Your task to perform on an android device: Add usb-a to usb-b to the cart on target.com, then select checkout. Image 0: 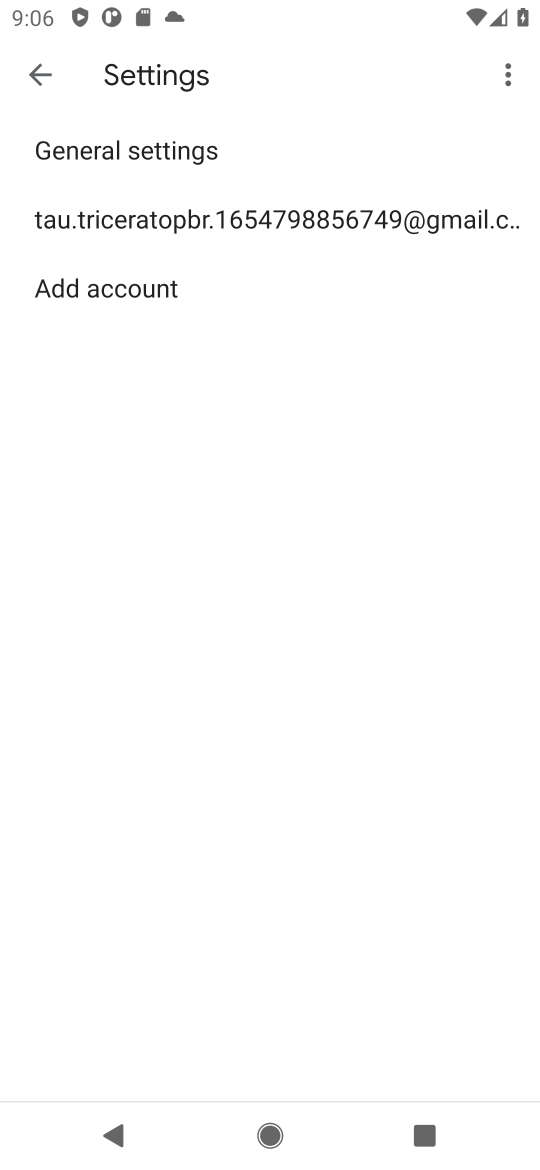
Step 0: click (385, 911)
Your task to perform on an android device: Add usb-a to usb-b to the cart on target.com, then select checkout. Image 1: 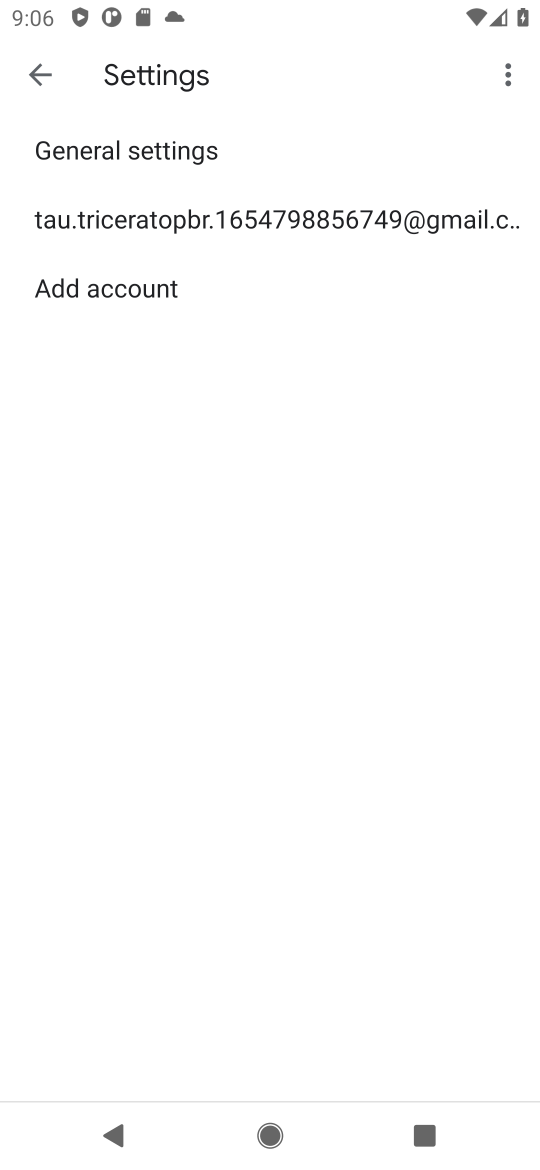
Step 1: press home button
Your task to perform on an android device: Add usb-a to usb-b to the cart on target.com, then select checkout. Image 2: 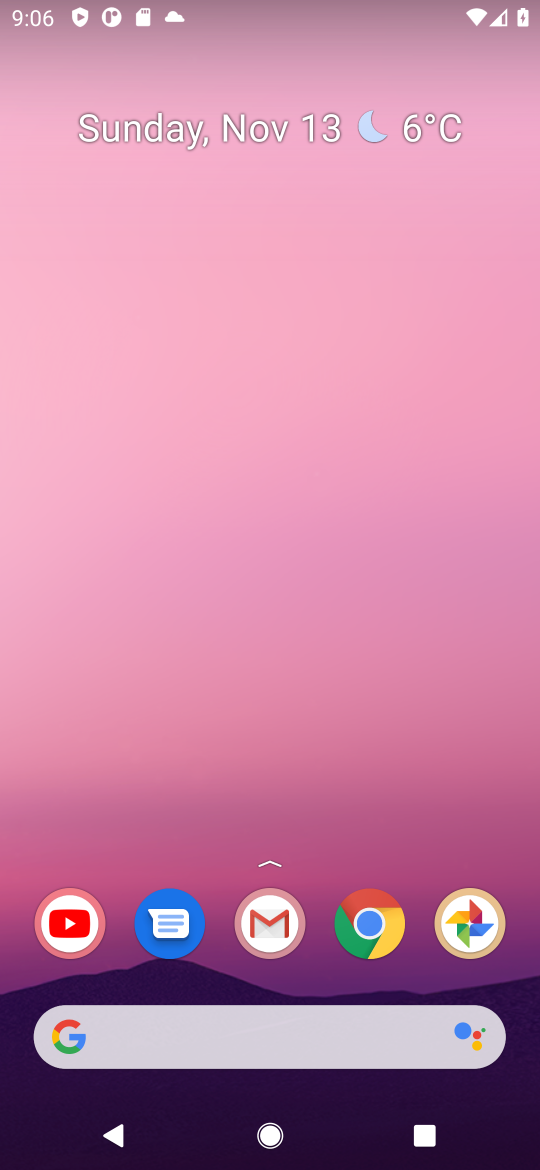
Step 2: click (394, 906)
Your task to perform on an android device: Add usb-a to usb-b to the cart on target.com, then select checkout. Image 3: 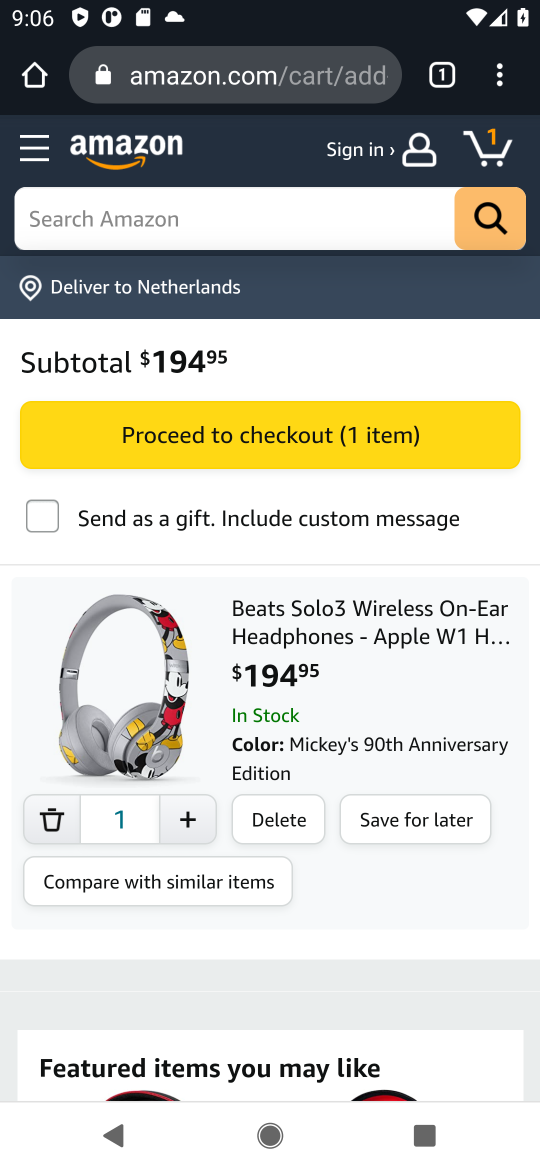
Step 3: click (329, 69)
Your task to perform on an android device: Add usb-a to usb-b to the cart on target.com, then select checkout. Image 4: 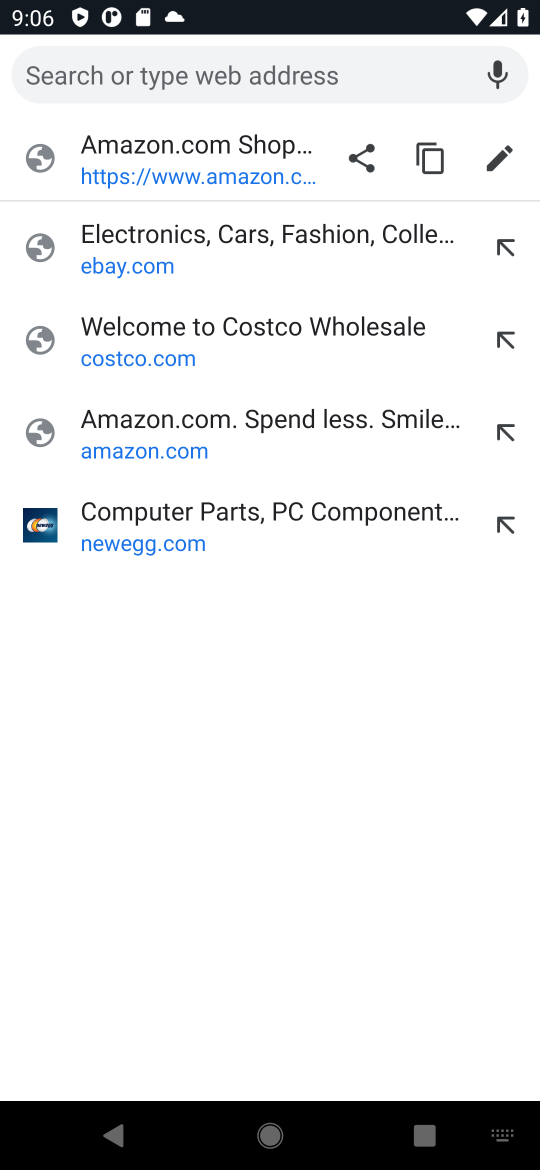
Step 4: type " target.com"
Your task to perform on an android device: Add usb-a to usb-b to the cart on target.com, then select checkout. Image 5: 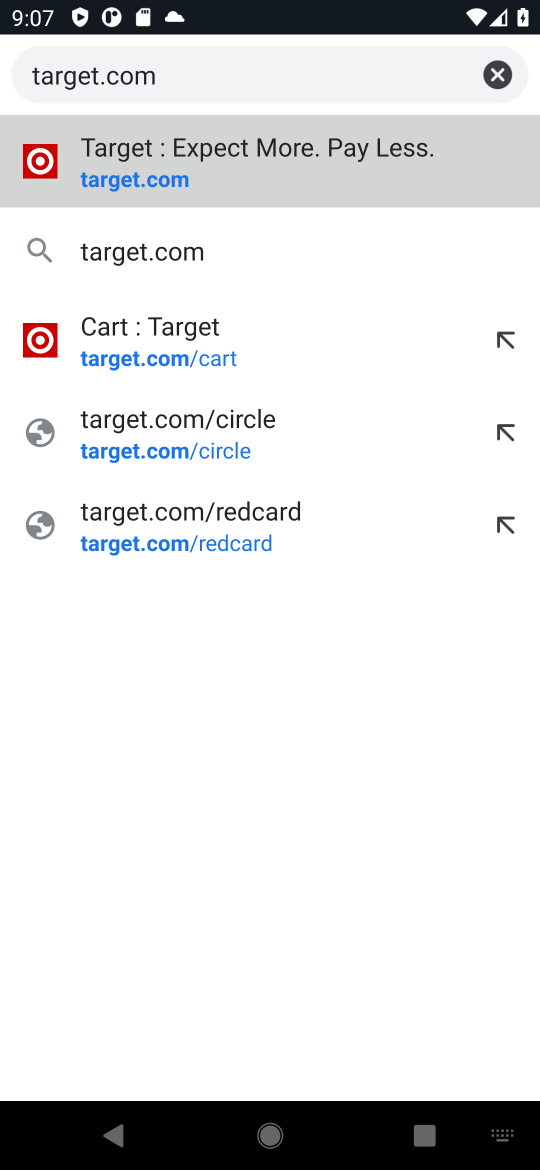
Step 5: click (186, 245)
Your task to perform on an android device: Add usb-a to usb-b to the cart on target.com, then select checkout. Image 6: 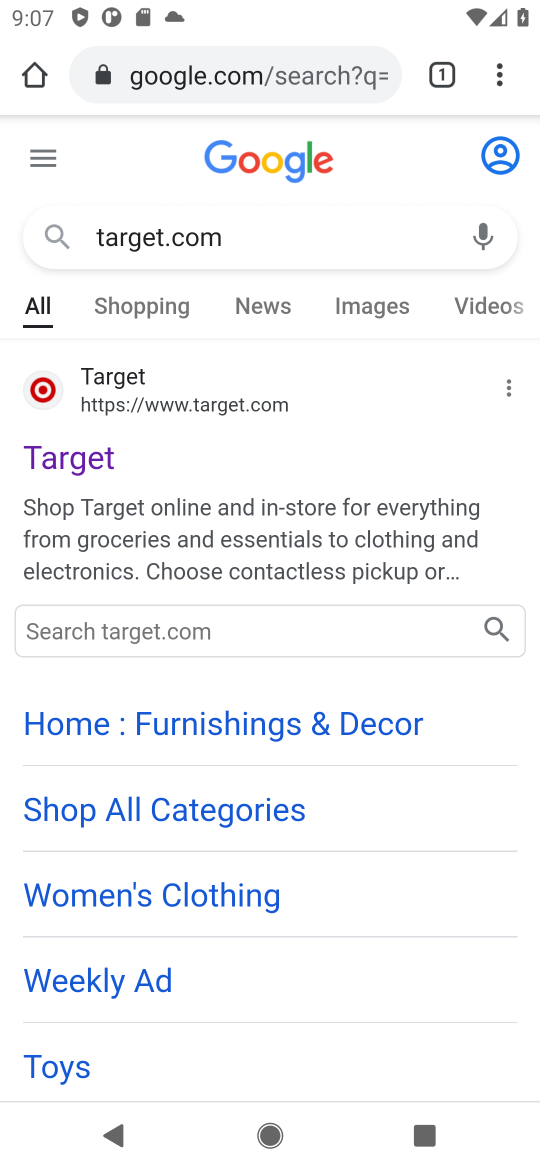
Step 6: click (211, 403)
Your task to perform on an android device: Add usb-a to usb-b to the cart on target.com, then select checkout. Image 7: 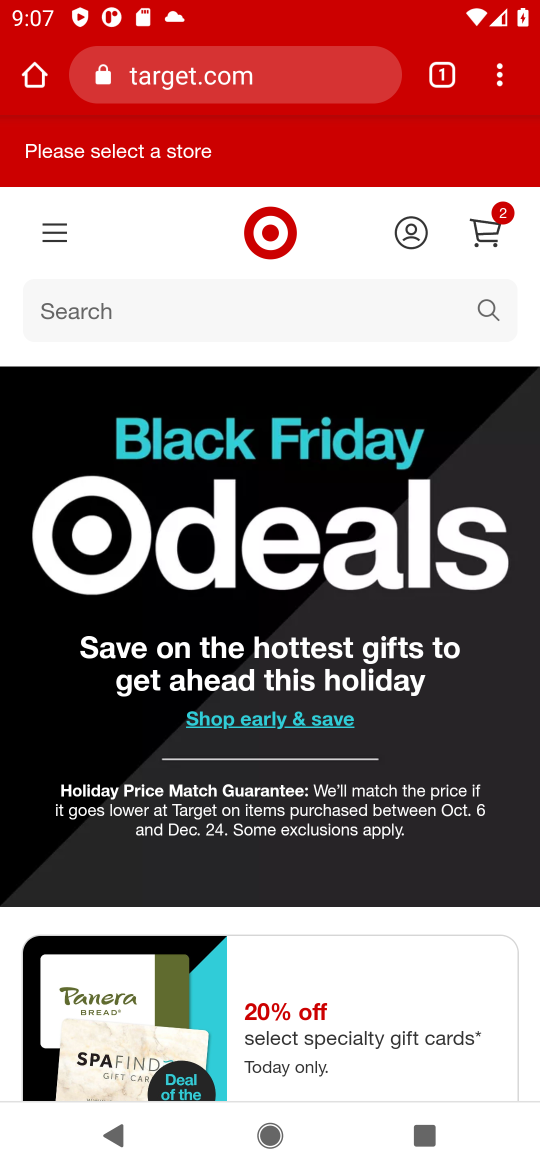
Step 7: click (491, 313)
Your task to perform on an android device: Add usb-a to usb-b to the cart on target.com, then select checkout. Image 8: 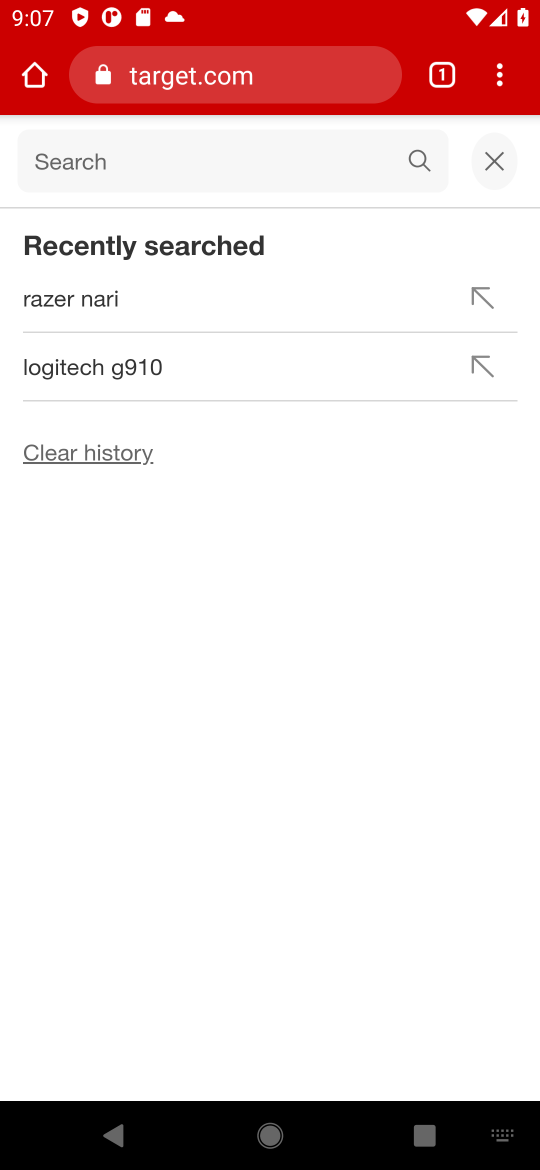
Step 8: type "usb-a to usb-b"
Your task to perform on an android device: Add usb-a to usb-b to the cart on target.com, then select checkout. Image 9: 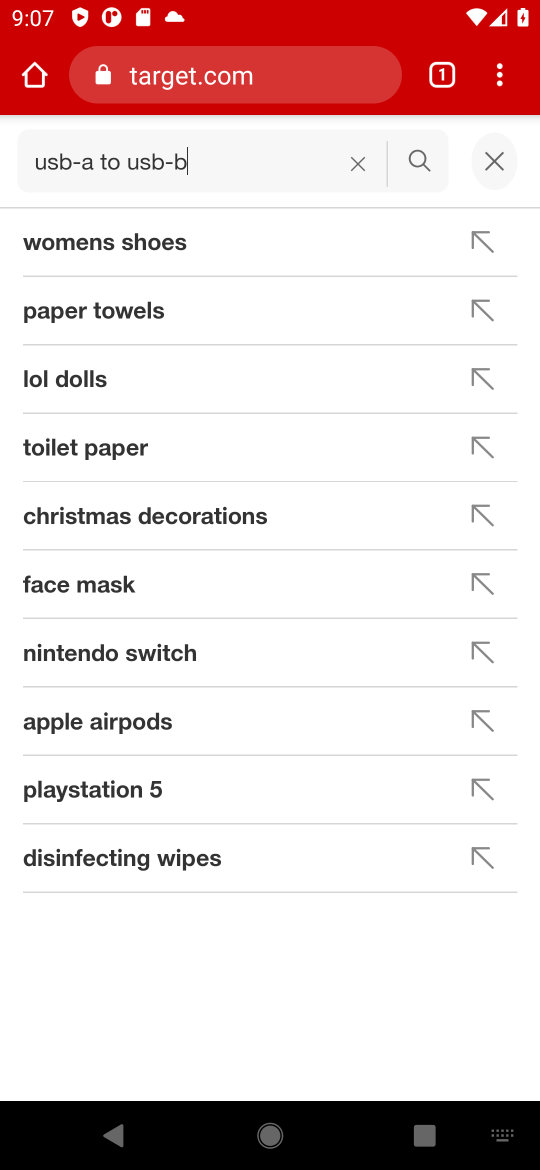
Step 9: press enter
Your task to perform on an android device: Add usb-a to usb-b to the cart on target.com, then select checkout. Image 10: 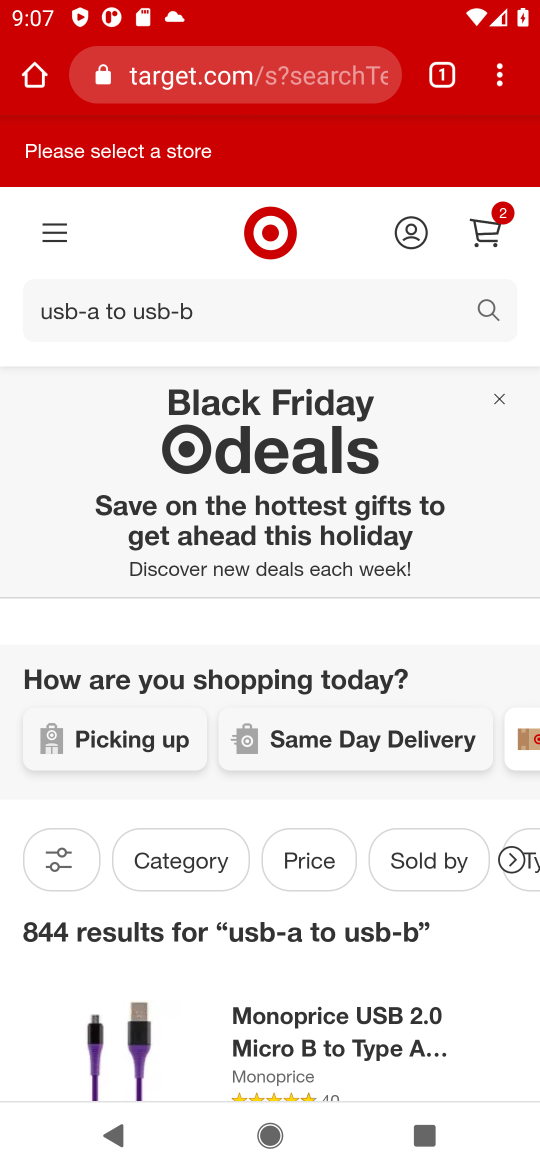
Step 10: drag from (440, 1010) to (450, 645)
Your task to perform on an android device: Add usb-a to usb-b to the cart on target.com, then select checkout. Image 11: 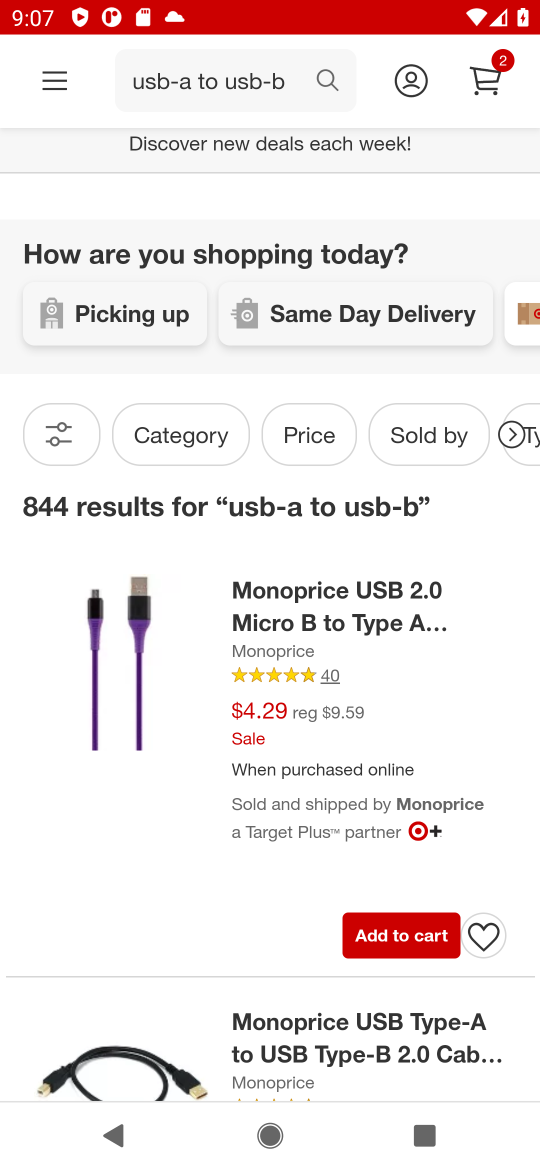
Step 11: click (122, 686)
Your task to perform on an android device: Add usb-a to usb-b to the cart on target.com, then select checkout. Image 12: 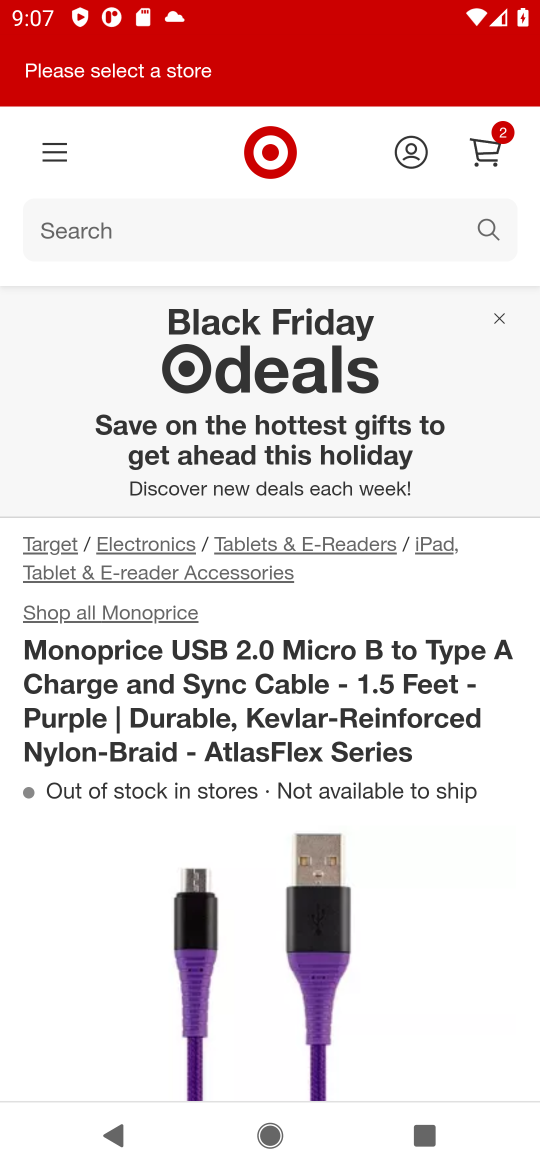
Step 12: drag from (422, 939) to (348, 339)
Your task to perform on an android device: Add usb-a to usb-b to the cart on target.com, then select checkout. Image 13: 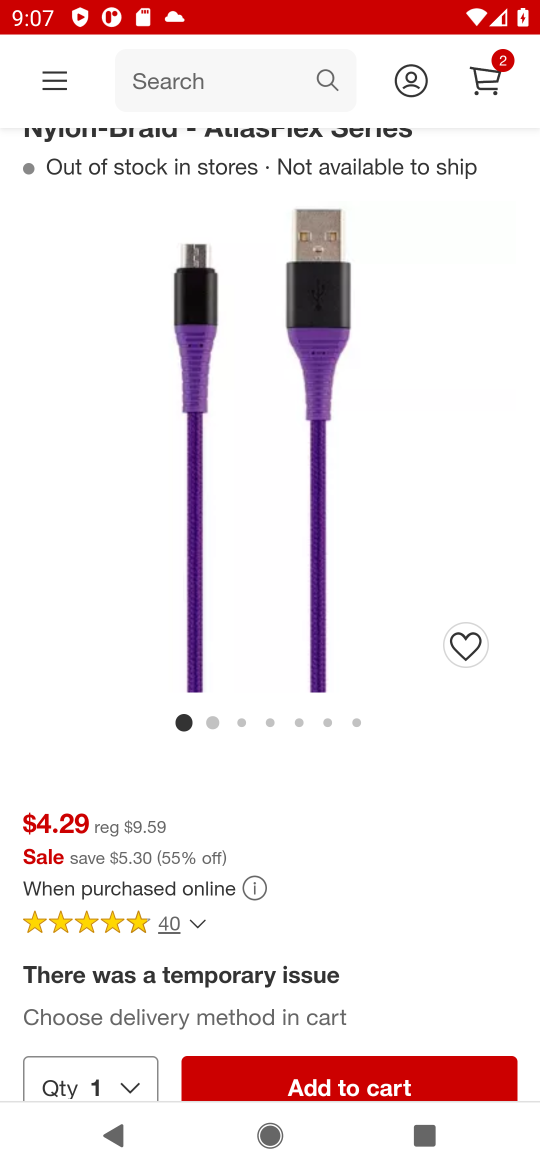
Step 13: drag from (401, 822) to (349, 443)
Your task to perform on an android device: Add usb-a to usb-b to the cart on target.com, then select checkout. Image 14: 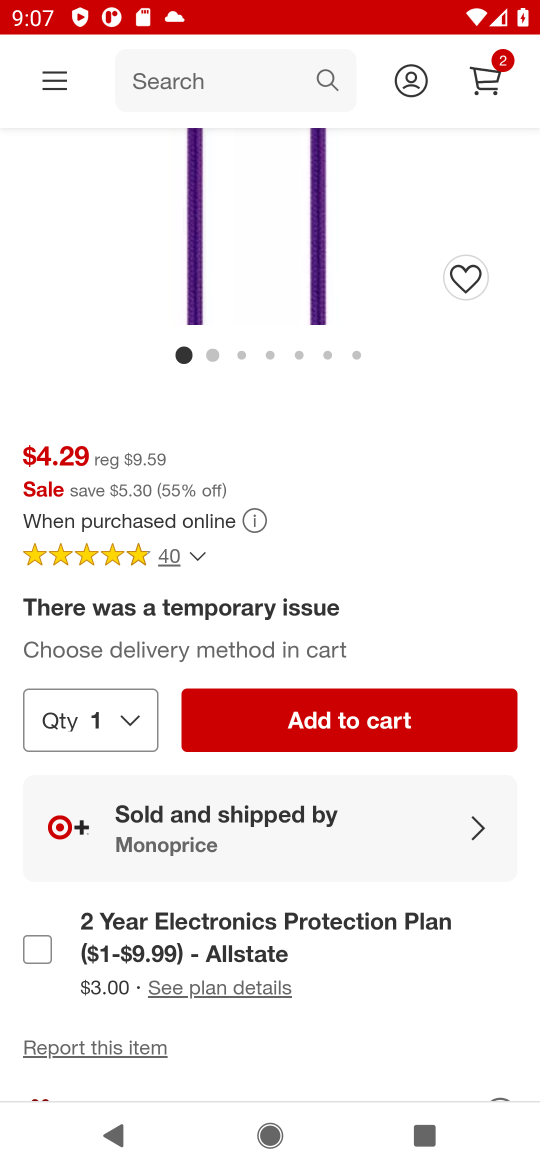
Step 14: click (371, 735)
Your task to perform on an android device: Add usb-a to usb-b to the cart on target.com, then select checkout. Image 15: 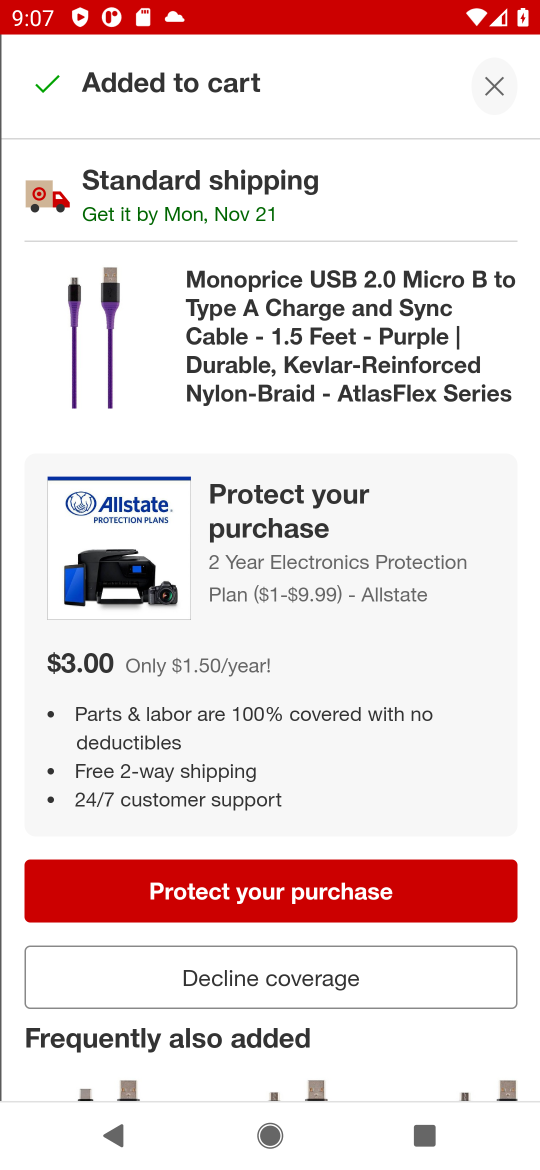
Step 15: click (491, 72)
Your task to perform on an android device: Add usb-a to usb-b to the cart on target.com, then select checkout. Image 16: 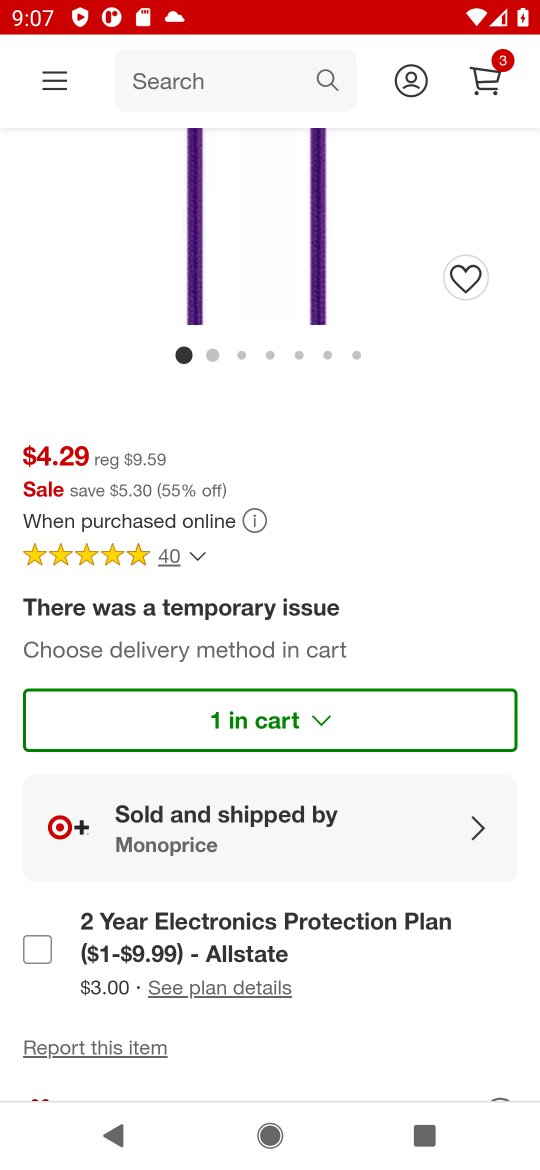
Step 16: click (491, 72)
Your task to perform on an android device: Add usb-a to usb-b to the cart on target.com, then select checkout. Image 17: 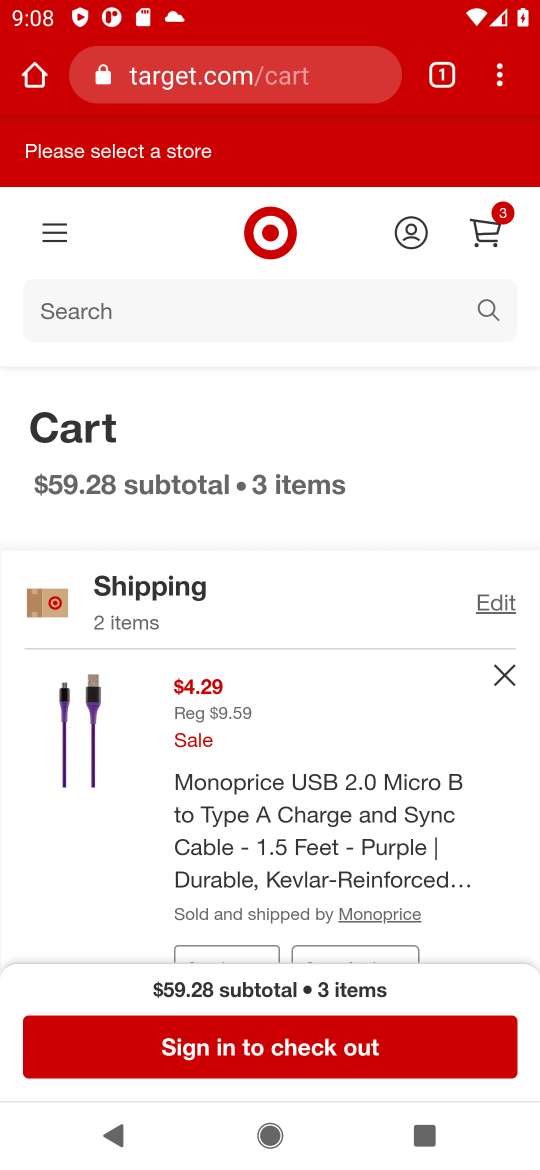
Step 17: click (480, 230)
Your task to perform on an android device: Add usb-a to usb-b to the cart on target.com, then select checkout. Image 18: 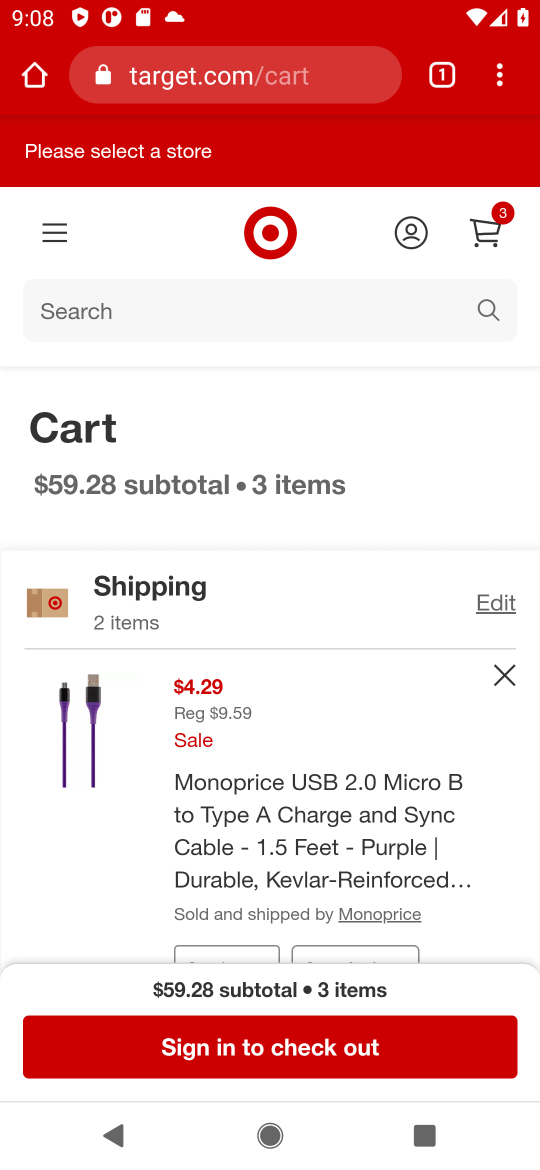
Step 18: drag from (425, 736) to (447, 231)
Your task to perform on an android device: Add usb-a to usb-b to the cart on target.com, then select checkout. Image 19: 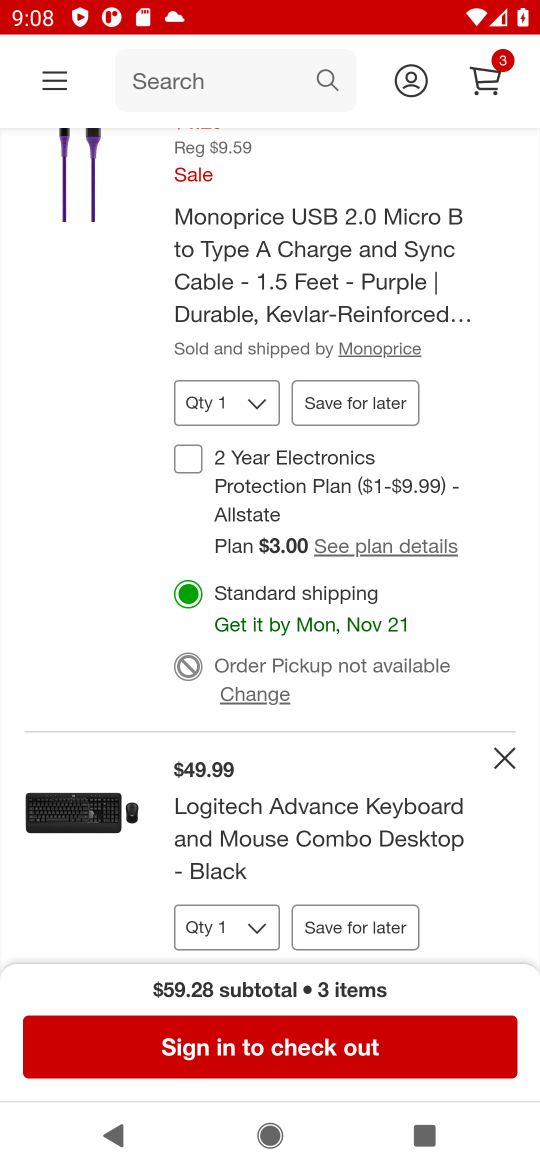
Step 19: click (335, 1039)
Your task to perform on an android device: Add usb-a to usb-b to the cart on target.com, then select checkout. Image 20: 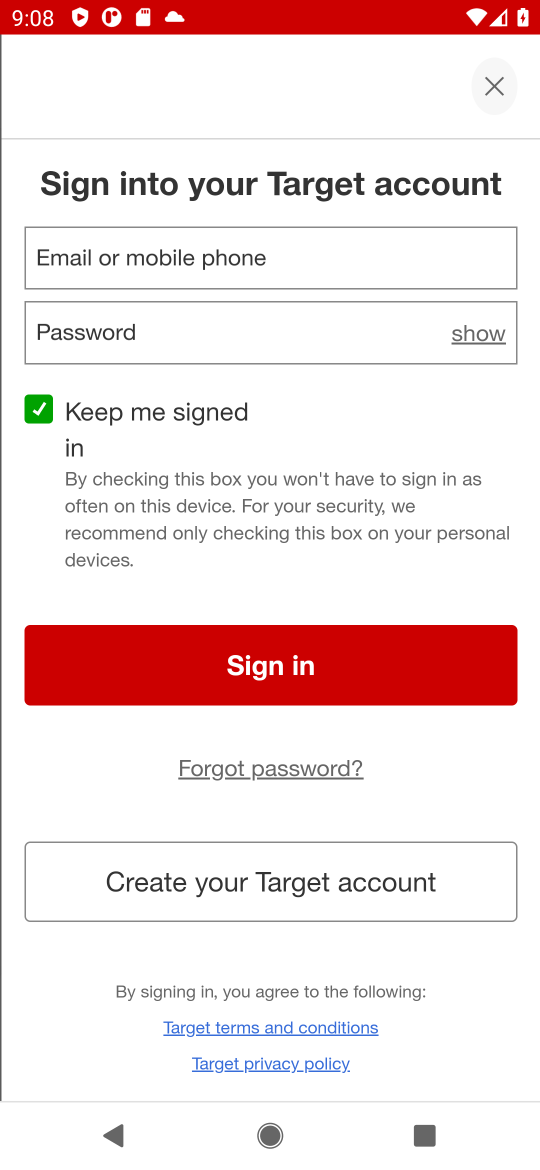
Step 20: task complete